Your task to perform on an android device: Go to Yahoo.com Image 0: 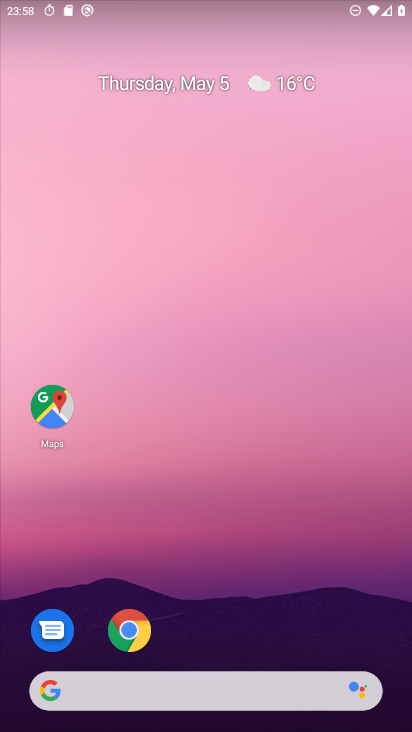
Step 0: drag from (257, 626) to (259, 148)
Your task to perform on an android device: Go to Yahoo.com Image 1: 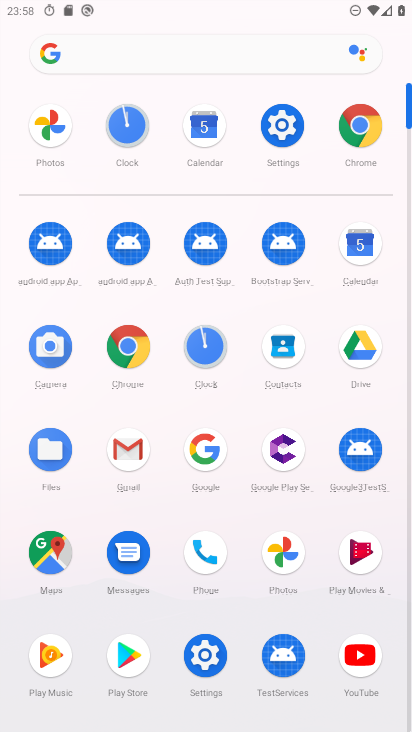
Step 1: click (126, 338)
Your task to perform on an android device: Go to Yahoo.com Image 2: 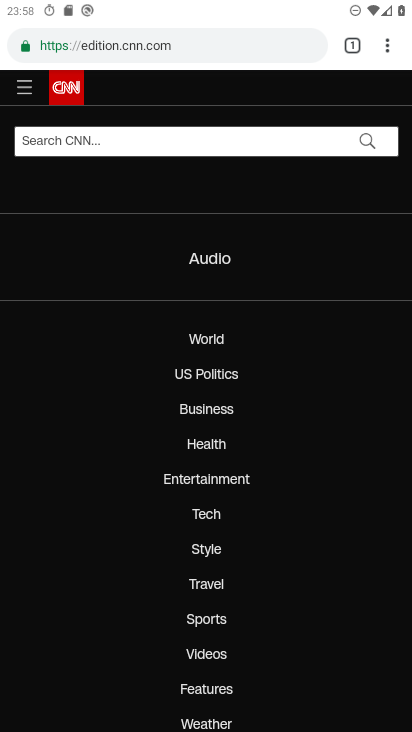
Step 2: click (229, 50)
Your task to perform on an android device: Go to Yahoo.com Image 3: 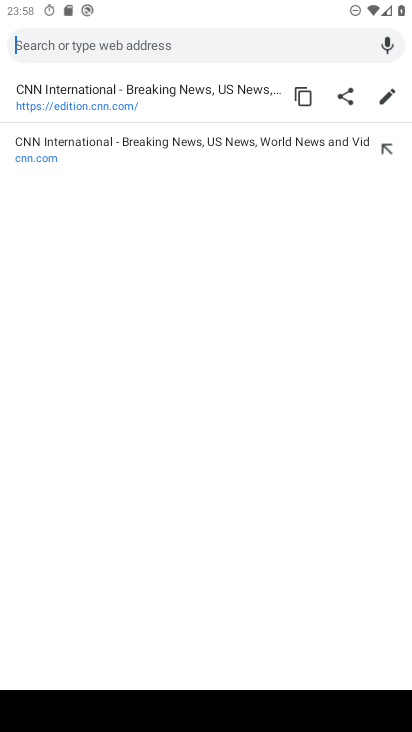
Step 3: type "yahoo.com"
Your task to perform on an android device: Go to Yahoo.com Image 4: 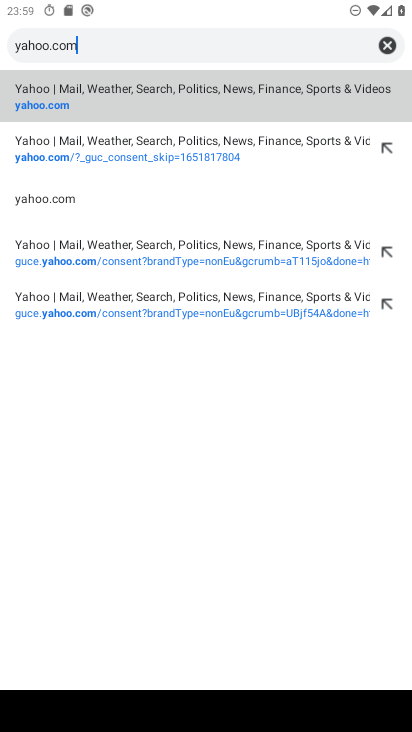
Step 4: click (44, 109)
Your task to perform on an android device: Go to Yahoo.com Image 5: 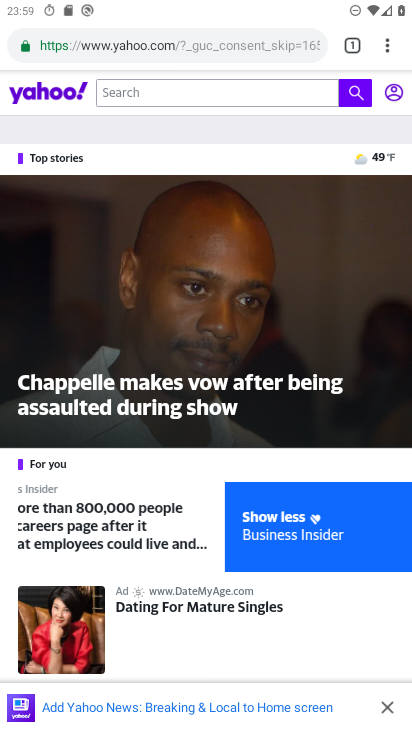
Step 5: task complete